Your task to perform on an android device: Add razer blade to the cart on newegg.com, then select checkout. Image 0: 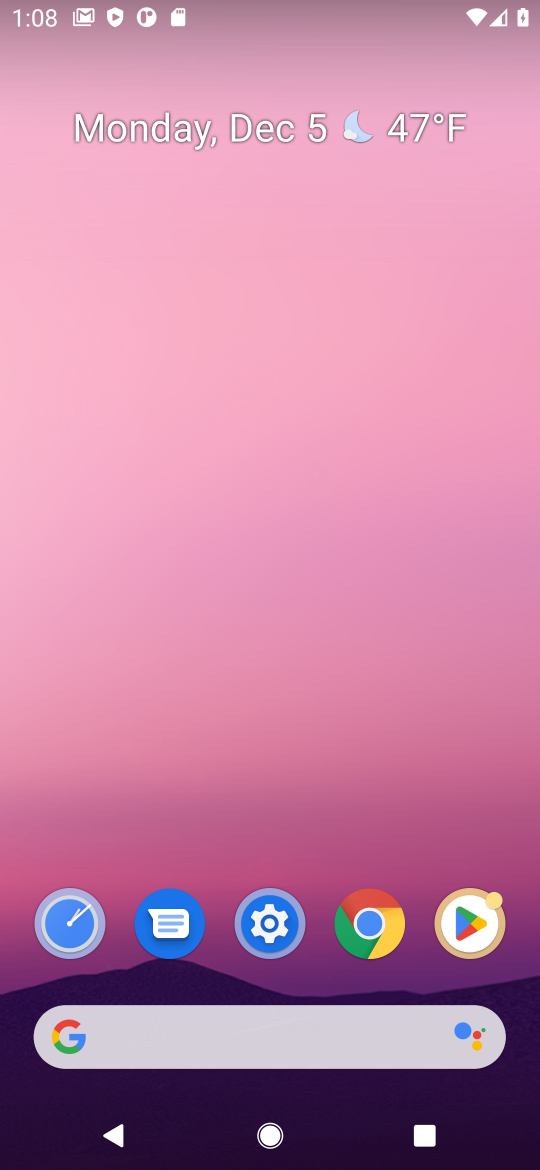
Step 0: click (209, 1034)
Your task to perform on an android device: Add razer blade to the cart on newegg.com, then select checkout. Image 1: 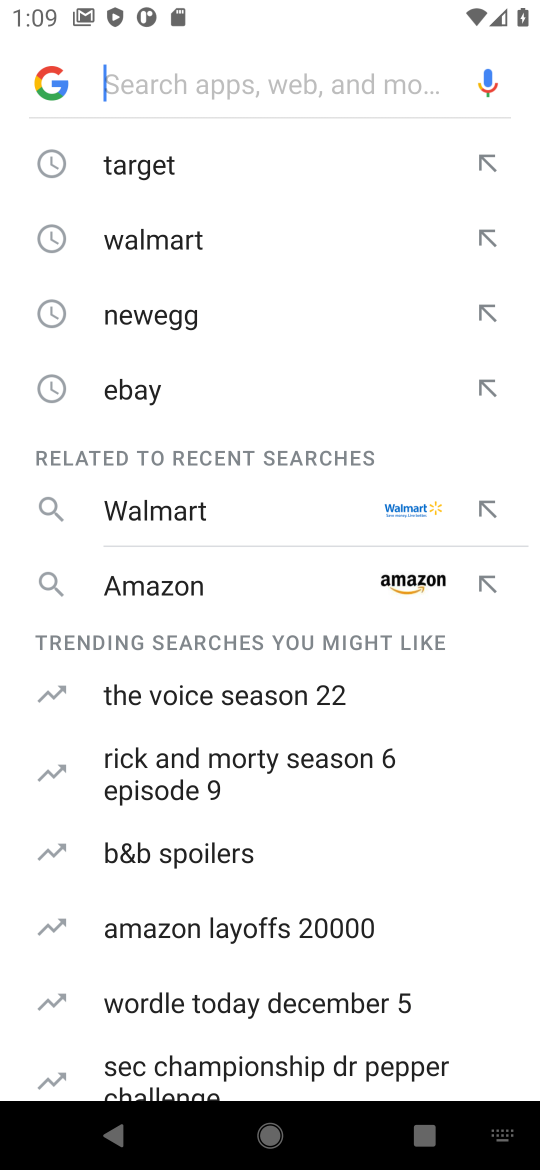
Step 1: click (141, 330)
Your task to perform on an android device: Add razer blade to the cart on newegg.com, then select checkout. Image 2: 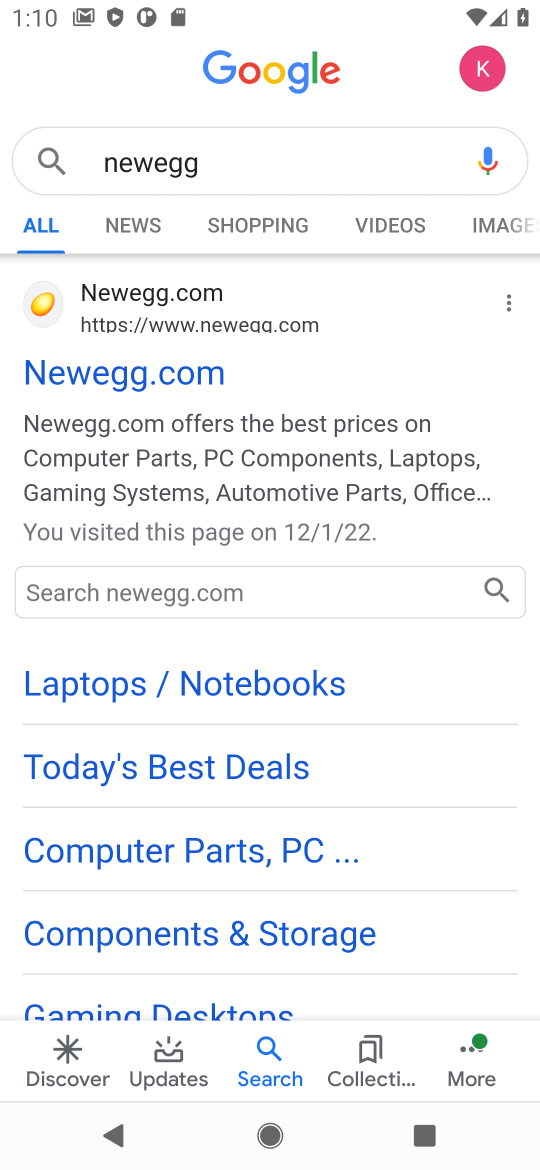
Step 2: click (159, 363)
Your task to perform on an android device: Add razer blade to the cart on newegg.com, then select checkout. Image 3: 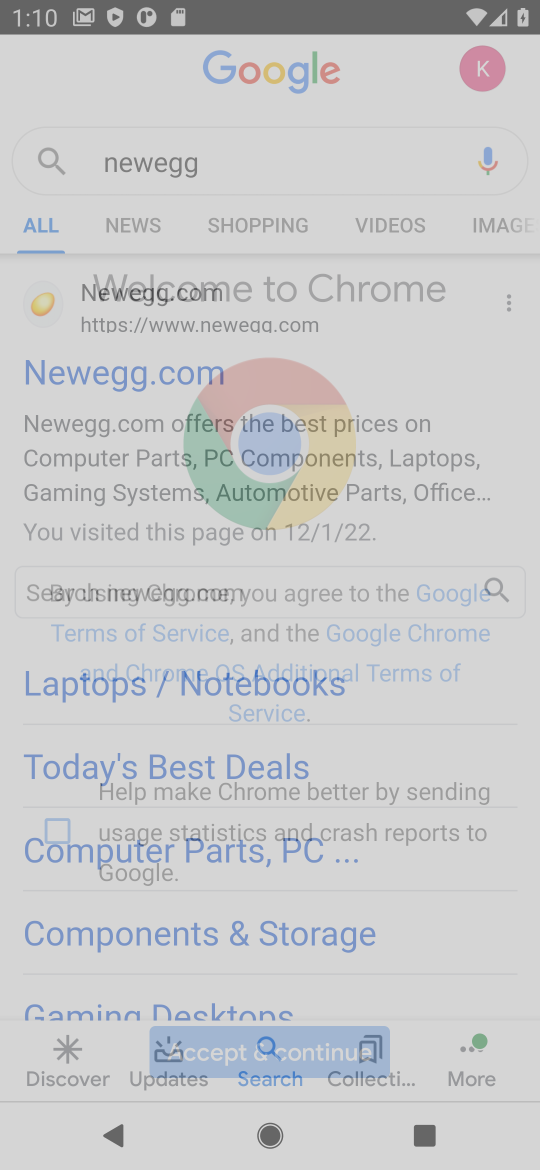
Step 3: task complete